Your task to perform on an android device: Open Youtube and go to "Your channel" Image 0: 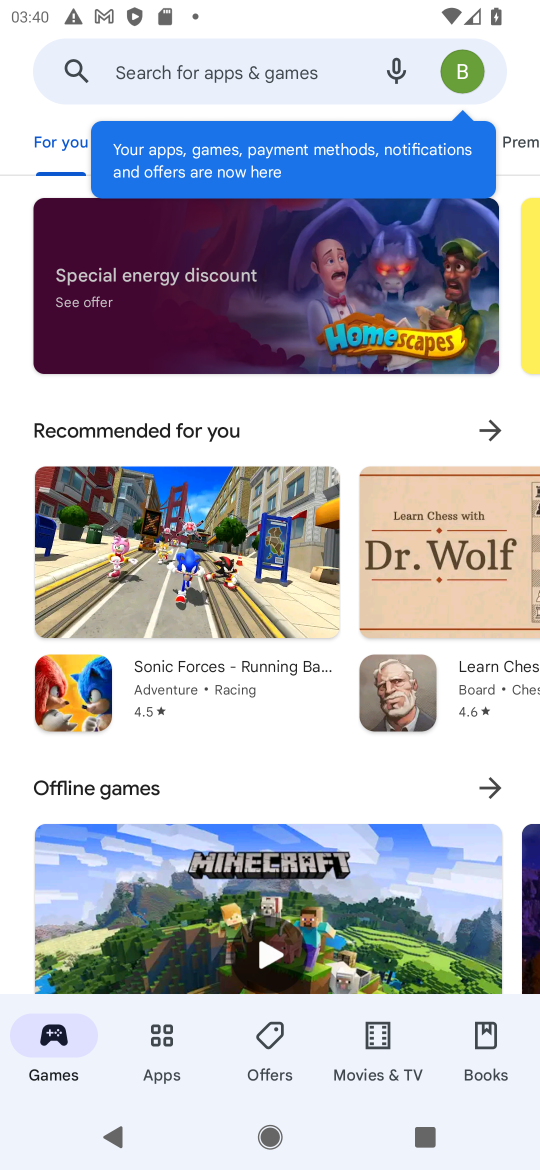
Step 0: press home button
Your task to perform on an android device: Open Youtube and go to "Your channel" Image 1: 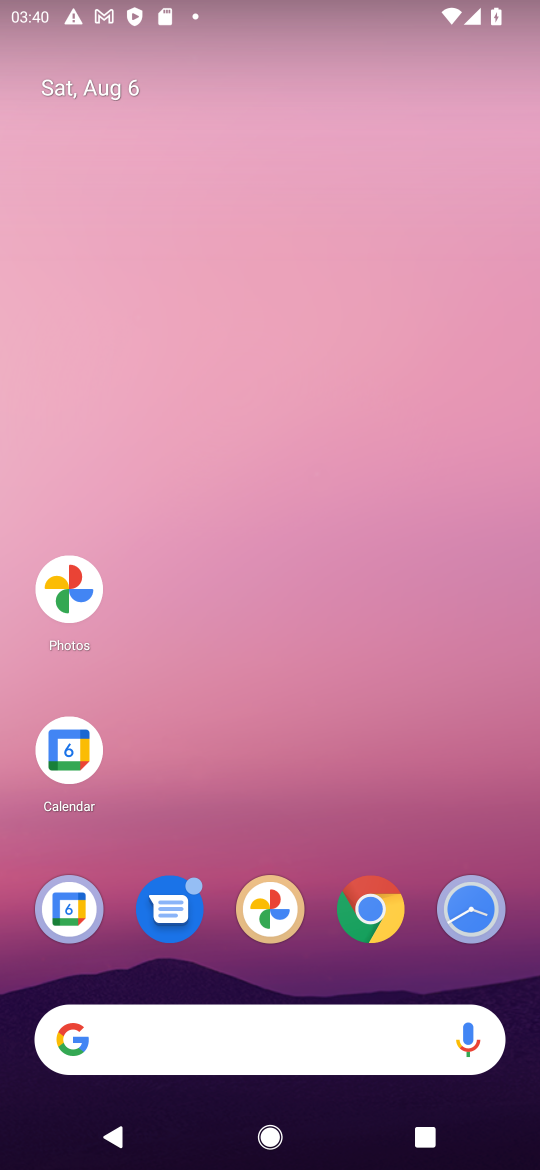
Step 1: drag from (258, 800) to (303, 137)
Your task to perform on an android device: Open Youtube and go to "Your channel" Image 2: 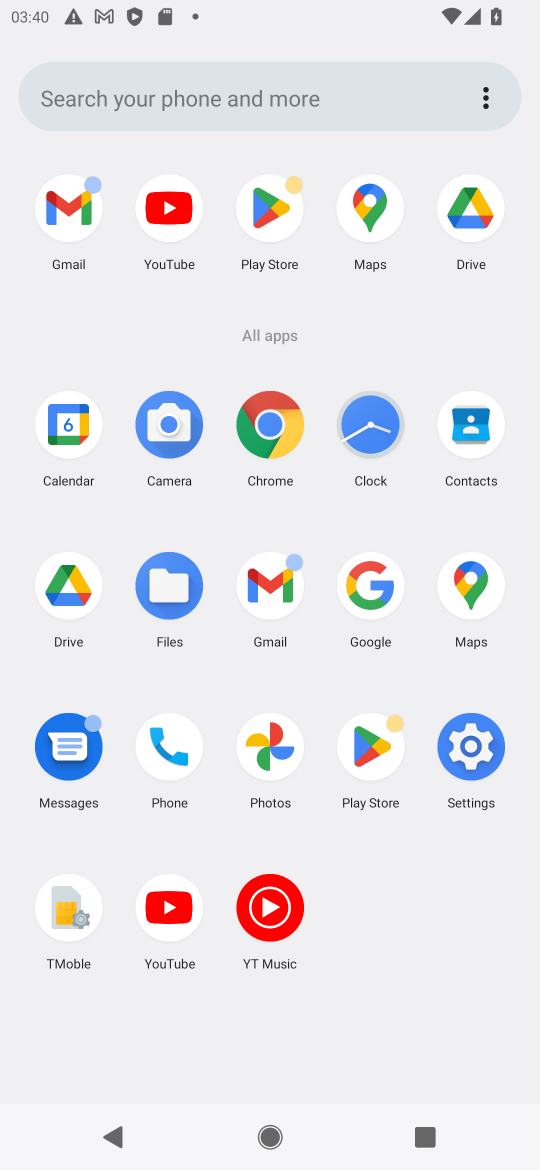
Step 2: click (165, 215)
Your task to perform on an android device: Open Youtube and go to "Your channel" Image 3: 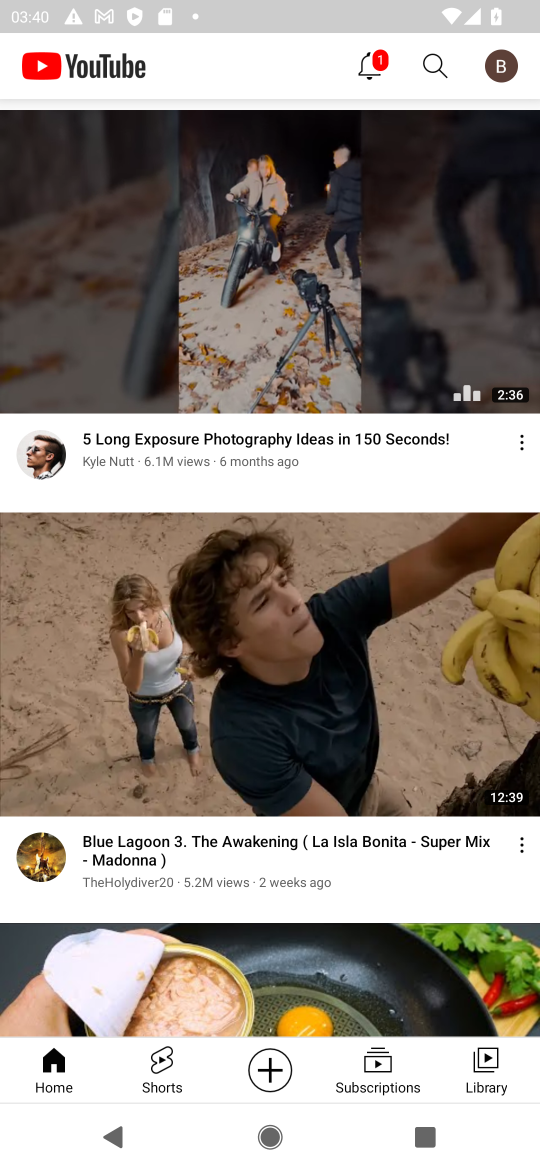
Step 3: click (491, 67)
Your task to perform on an android device: Open Youtube and go to "Your channel" Image 4: 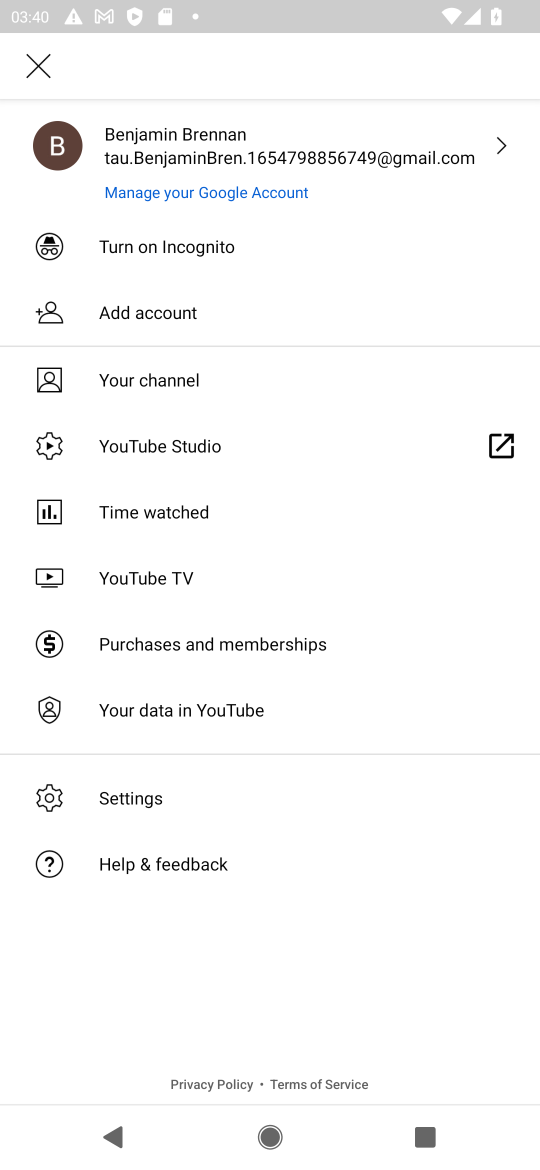
Step 4: click (149, 373)
Your task to perform on an android device: Open Youtube and go to "Your channel" Image 5: 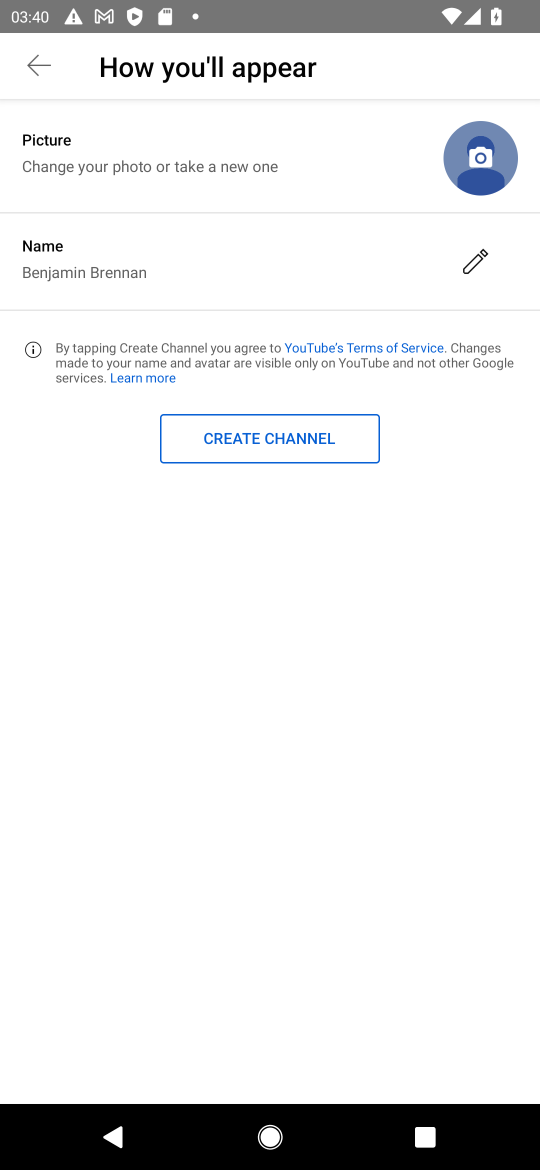
Step 5: task complete